Your task to perform on an android device: turn on javascript in the chrome app Image 0: 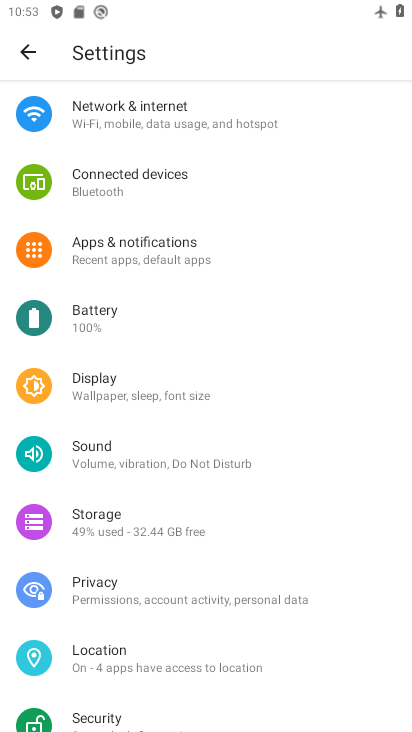
Step 0: press home button
Your task to perform on an android device: turn on javascript in the chrome app Image 1: 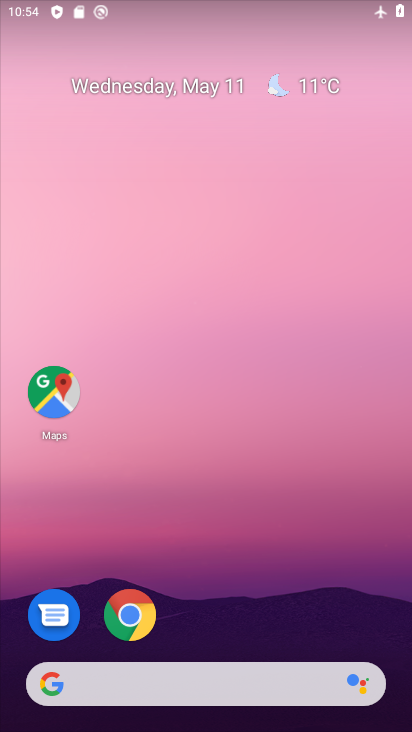
Step 1: click (134, 619)
Your task to perform on an android device: turn on javascript in the chrome app Image 2: 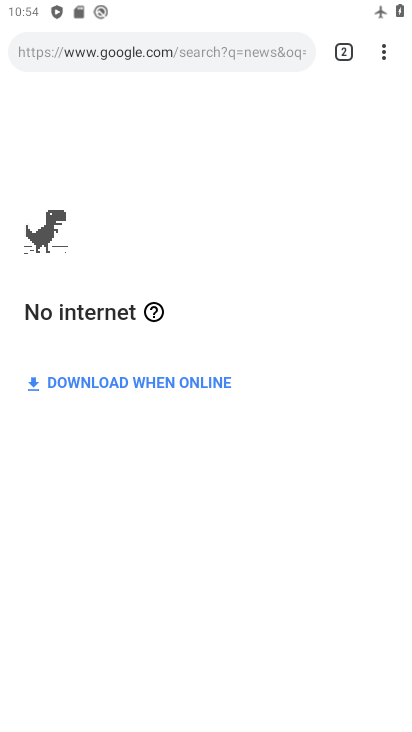
Step 2: drag from (391, 47) to (182, 579)
Your task to perform on an android device: turn on javascript in the chrome app Image 3: 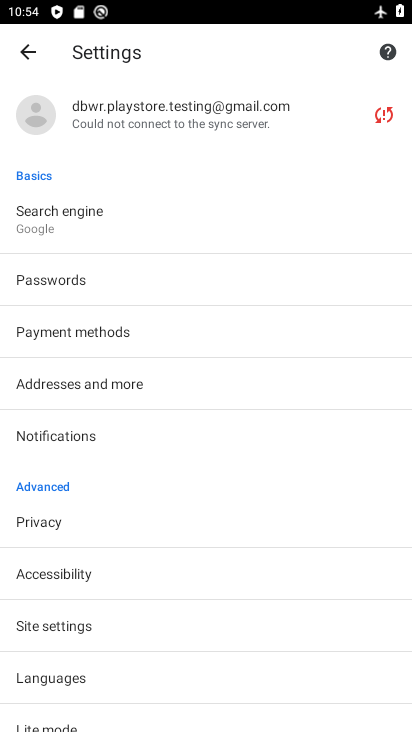
Step 3: click (77, 608)
Your task to perform on an android device: turn on javascript in the chrome app Image 4: 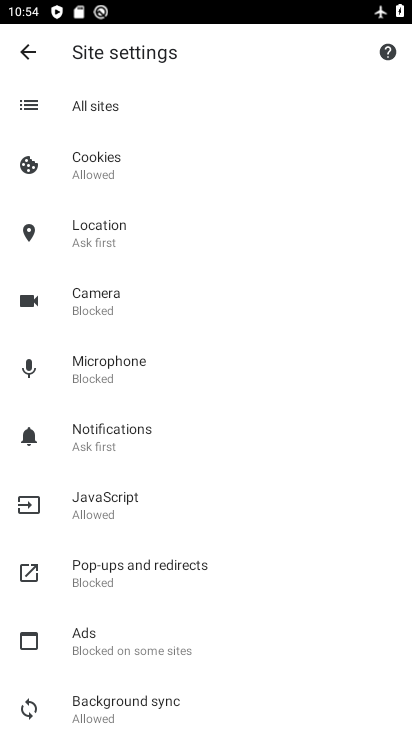
Step 4: click (112, 503)
Your task to perform on an android device: turn on javascript in the chrome app Image 5: 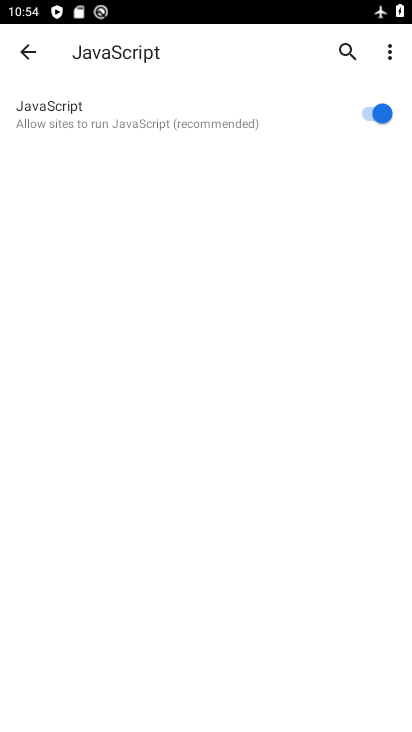
Step 5: task complete